Your task to perform on an android device: Play the last video I watched on Youtube Image 0: 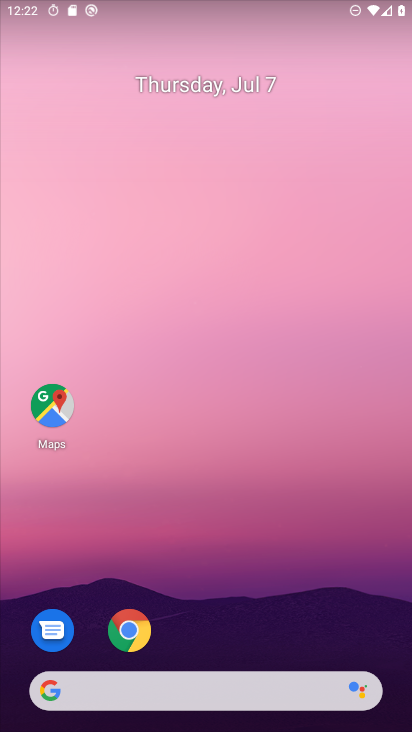
Step 0: drag from (205, 623) to (207, 59)
Your task to perform on an android device: Play the last video I watched on Youtube Image 1: 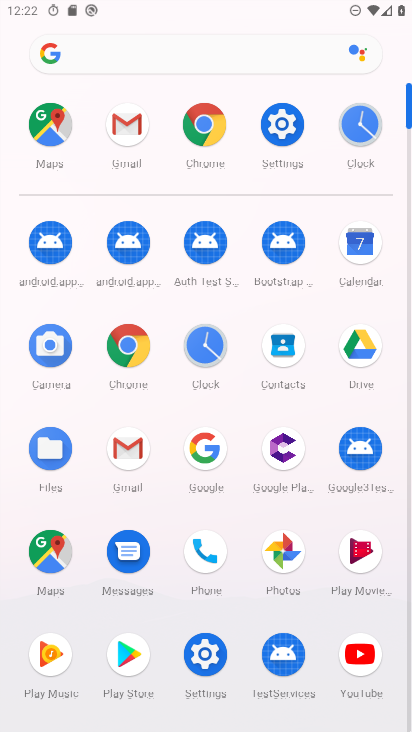
Step 1: click (363, 672)
Your task to perform on an android device: Play the last video I watched on Youtube Image 2: 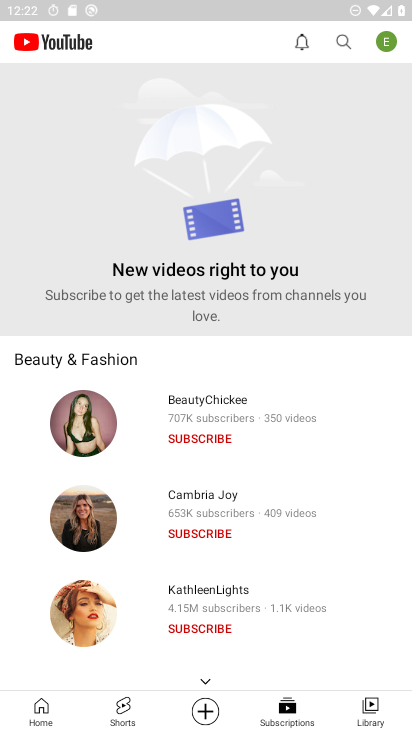
Step 2: drag from (238, 578) to (243, 328)
Your task to perform on an android device: Play the last video I watched on Youtube Image 3: 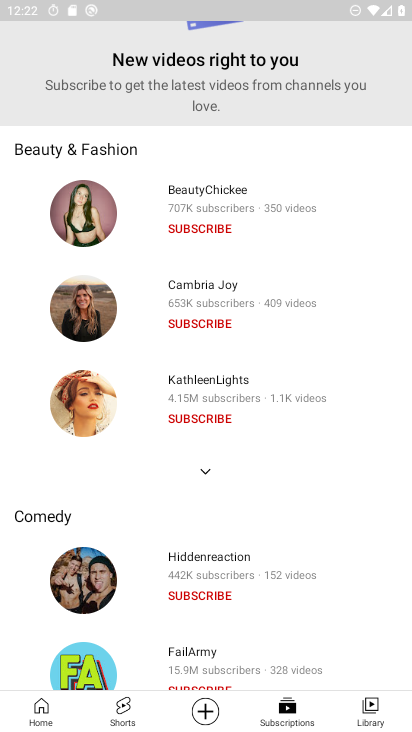
Step 3: click (377, 715)
Your task to perform on an android device: Play the last video I watched on Youtube Image 4: 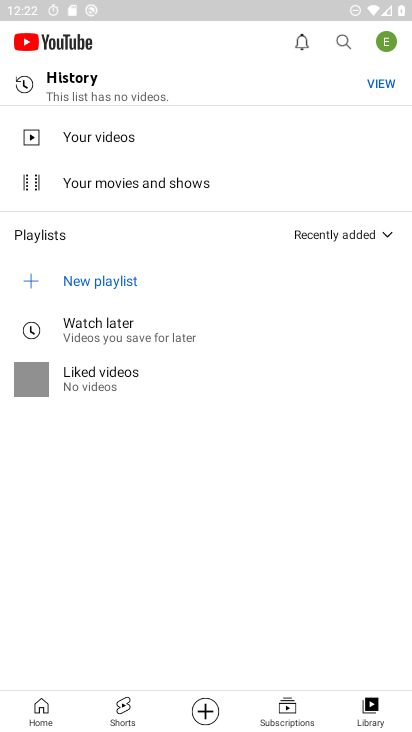
Step 4: click (90, 84)
Your task to perform on an android device: Play the last video I watched on Youtube Image 5: 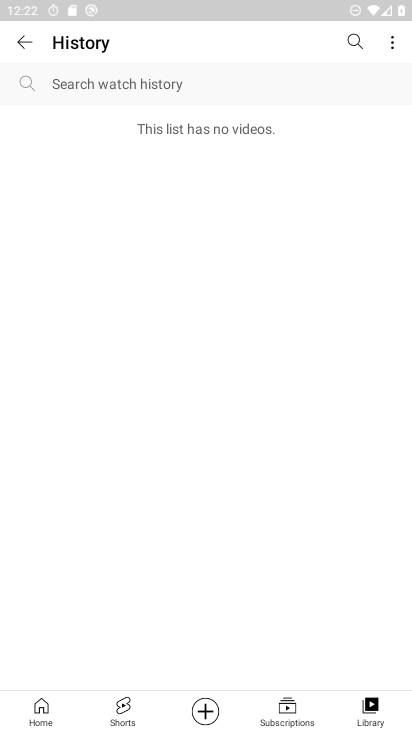
Step 5: task complete